Your task to perform on an android device: Go to settings Image 0: 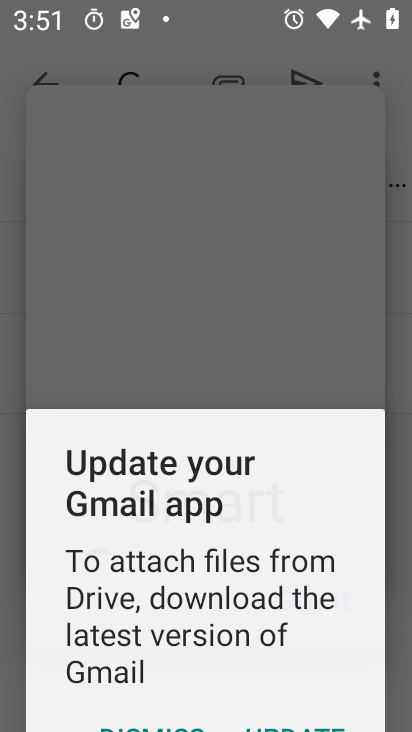
Step 0: press home button
Your task to perform on an android device: Go to settings Image 1: 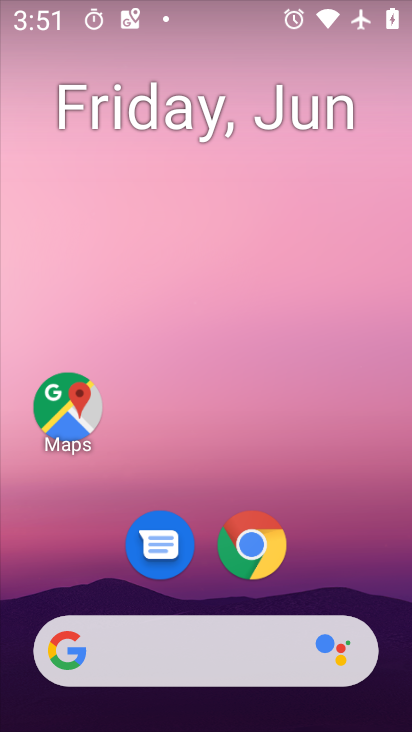
Step 1: drag from (346, 501) to (364, 10)
Your task to perform on an android device: Go to settings Image 2: 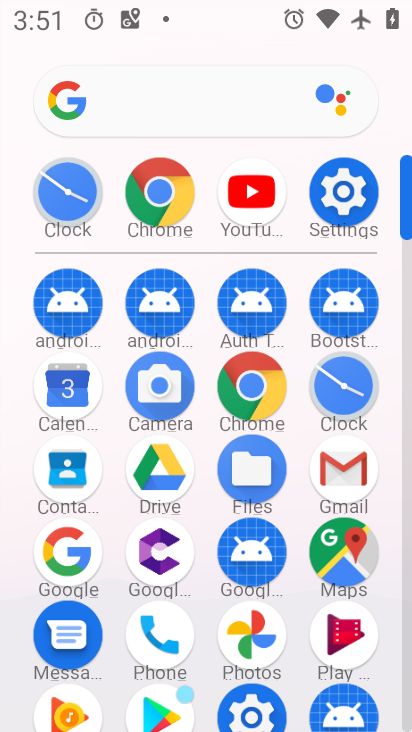
Step 2: click (344, 203)
Your task to perform on an android device: Go to settings Image 3: 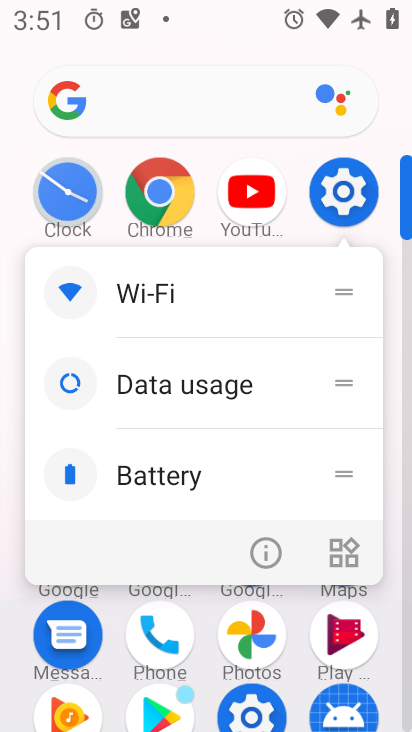
Step 3: click (346, 201)
Your task to perform on an android device: Go to settings Image 4: 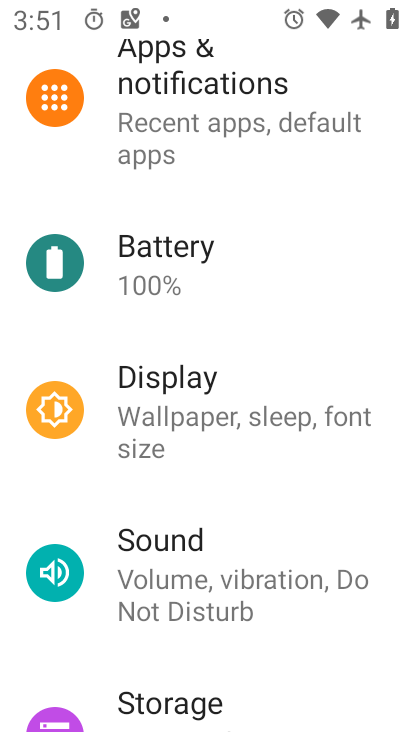
Step 4: task complete